Your task to perform on an android device: Open Youtube and go to the subscriptions tab Image 0: 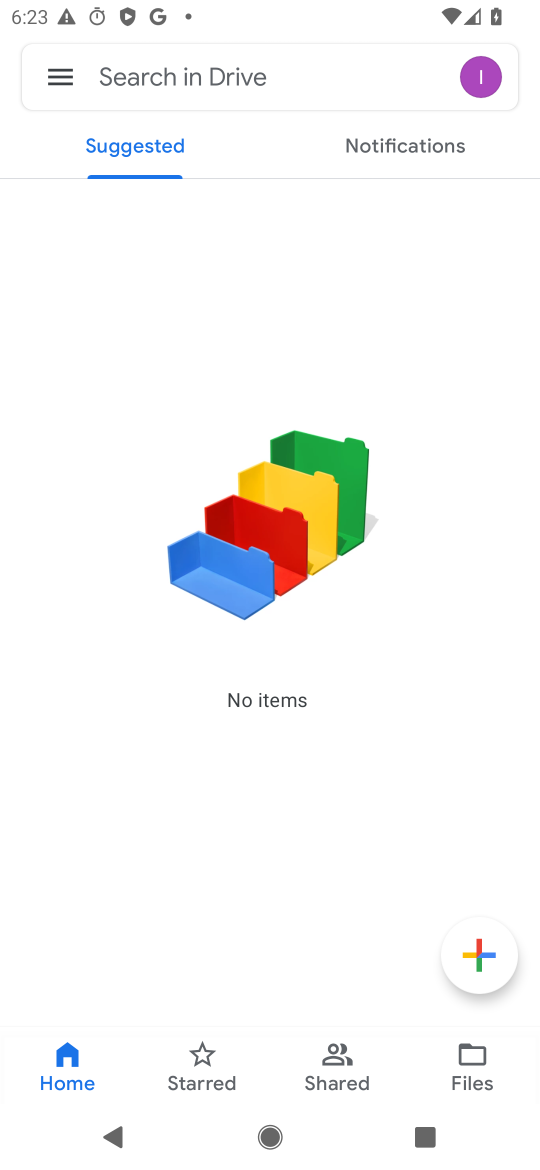
Step 0: press home button
Your task to perform on an android device: Open Youtube and go to the subscriptions tab Image 1: 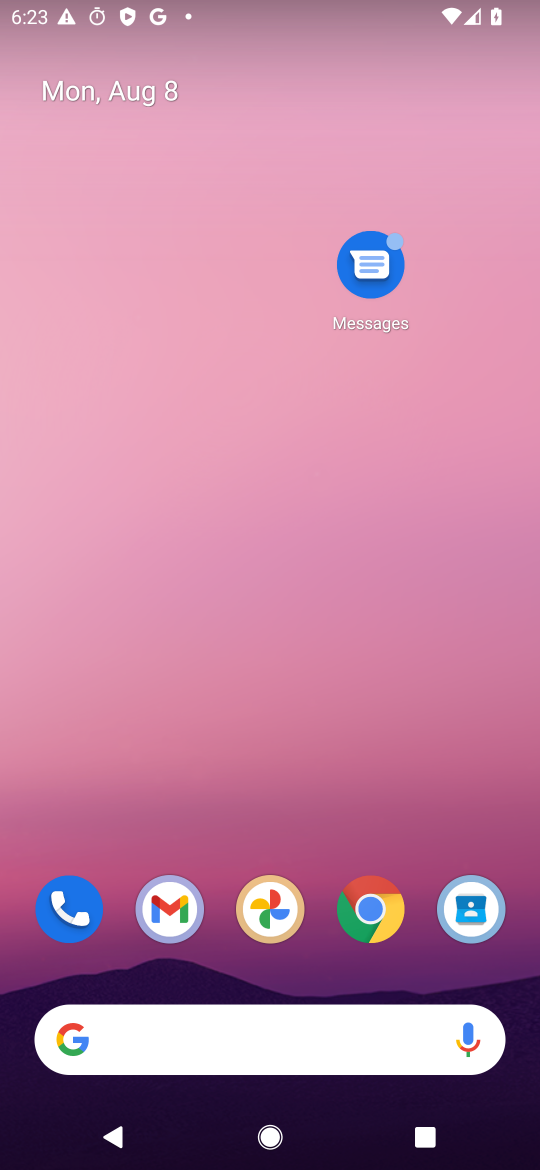
Step 1: drag from (308, 1037) to (438, 143)
Your task to perform on an android device: Open Youtube and go to the subscriptions tab Image 2: 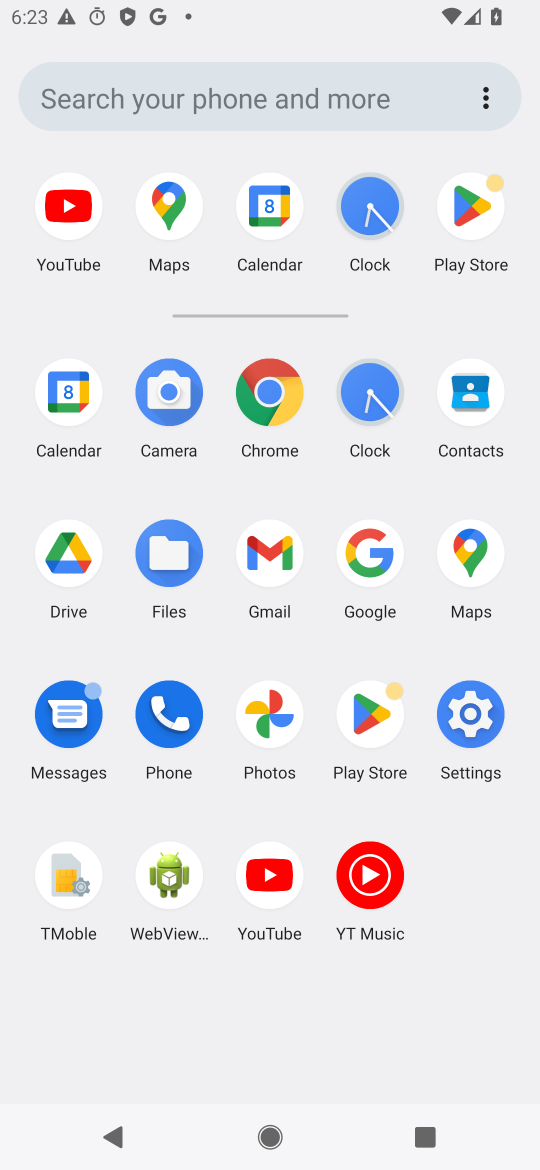
Step 2: click (279, 881)
Your task to perform on an android device: Open Youtube and go to the subscriptions tab Image 3: 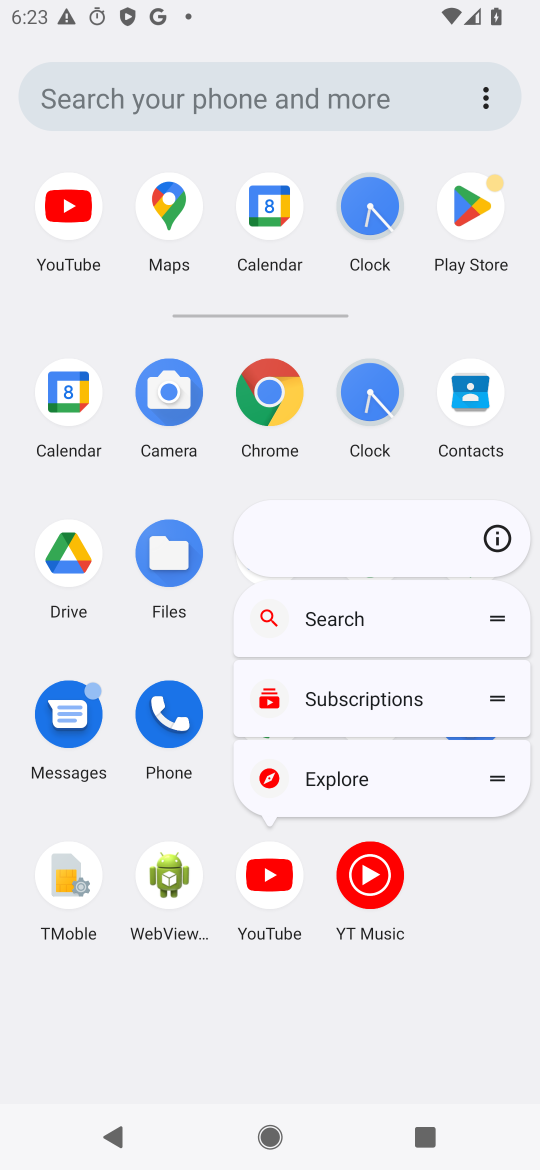
Step 3: click (266, 885)
Your task to perform on an android device: Open Youtube and go to the subscriptions tab Image 4: 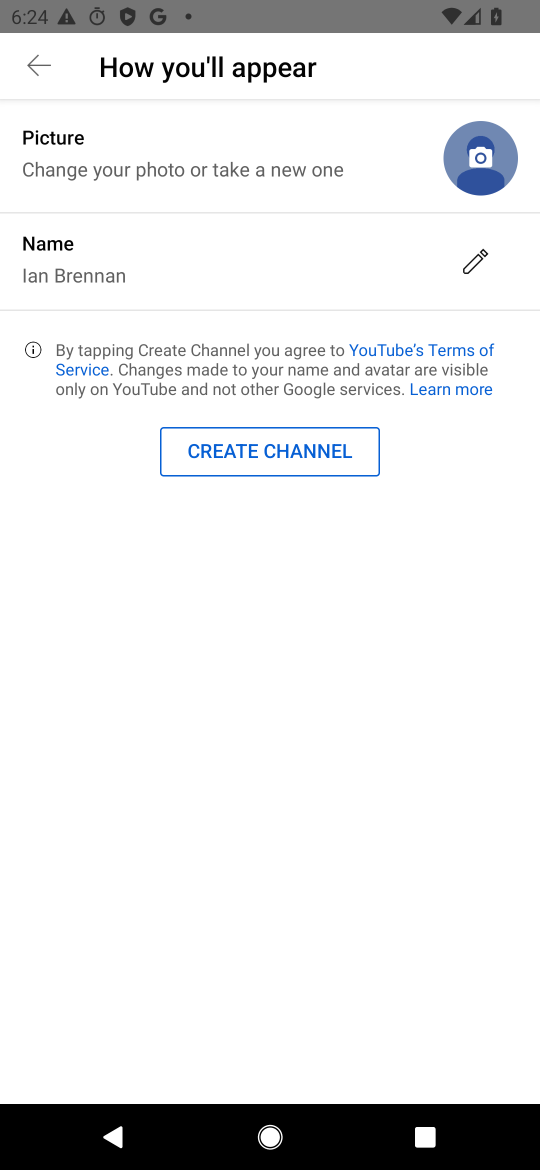
Step 4: click (36, 66)
Your task to perform on an android device: Open Youtube and go to the subscriptions tab Image 5: 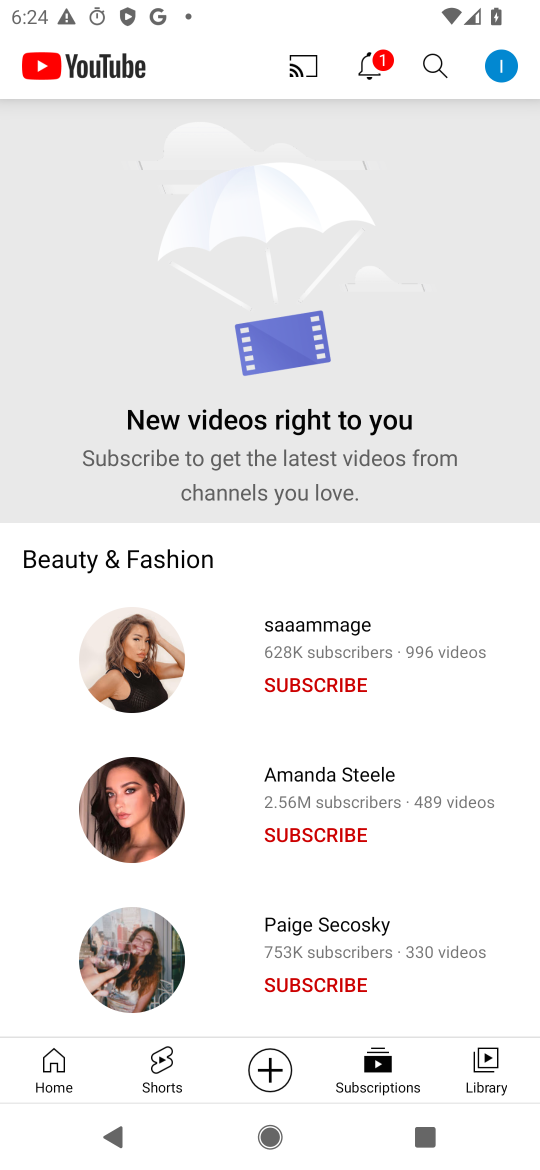
Step 5: click (392, 1060)
Your task to perform on an android device: Open Youtube and go to the subscriptions tab Image 6: 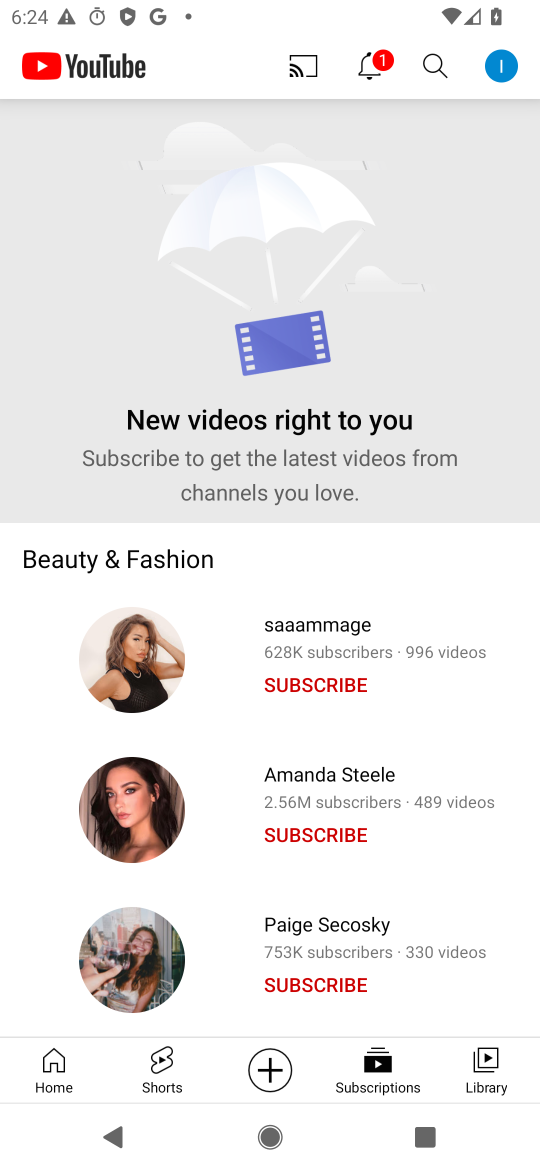
Step 6: task complete